Your task to perform on an android device: change text size in settings app Image 0: 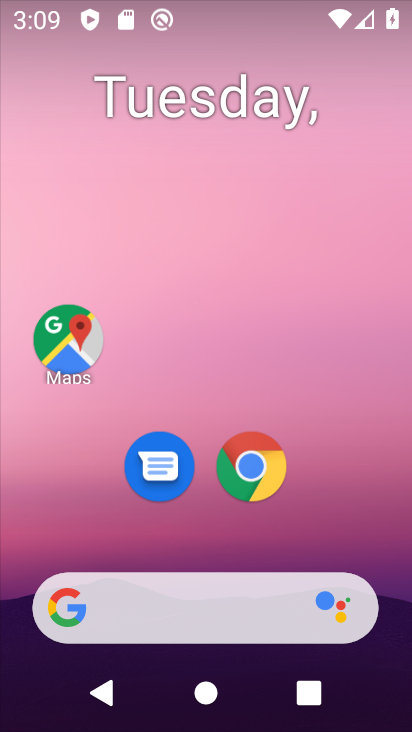
Step 0: drag from (374, 553) to (324, 282)
Your task to perform on an android device: change text size in settings app Image 1: 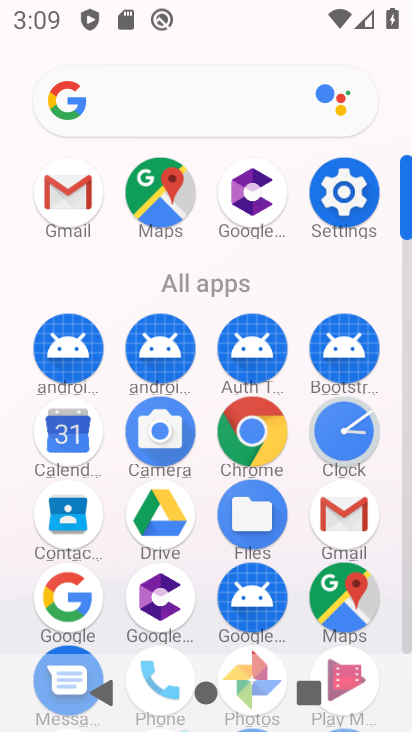
Step 1: click (337, 191)
Your task to perform on an android device: change text size in settings app Image 2: 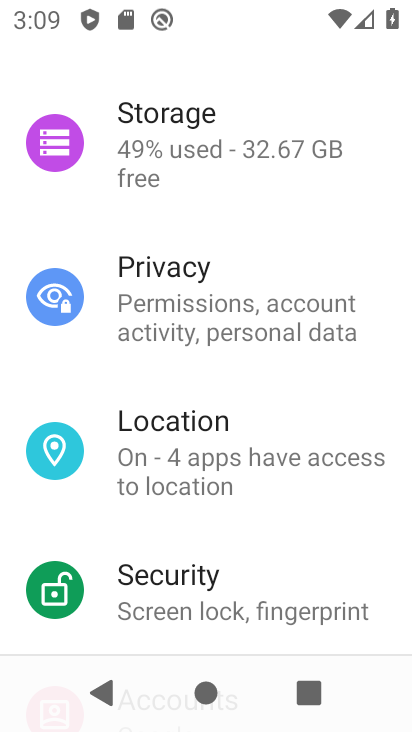
Step 2: drag from (337, 581) to (339, 42)
Your task to perform on an android device: change text size in settings app Image 3: 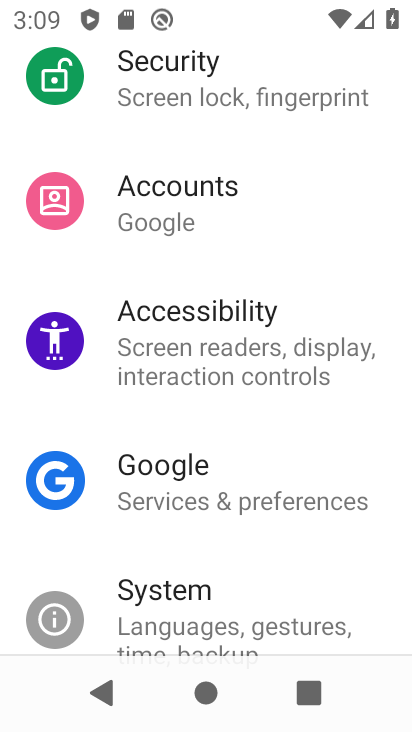
Step 3: drag from (305, 169) to (239, 531)
Your task to perform on an android device: change text size in settings app Image 4: 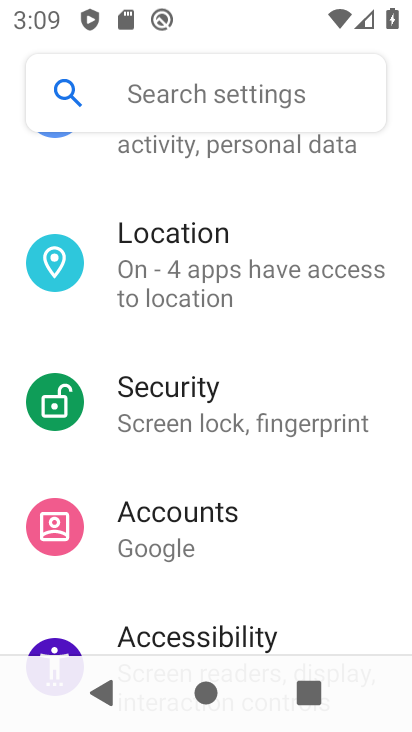
Step 4: drag from (282, 189) to (196, 553)
Your task to perform on an android device: change text size in settings app Image 5: 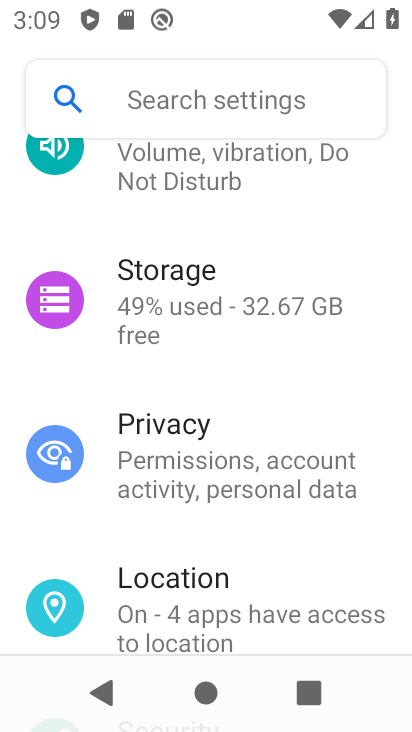
Step 5: drag from (303, 206) to (257, 554)
Your task to perform on an android device: change text size in settings app Image 6: 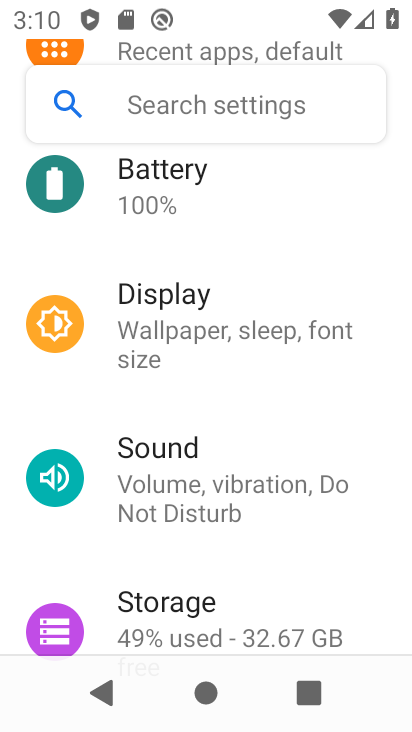
Step 6: click (211, 320)
Your task to perform on an android device: change text size in settings app Image 7: 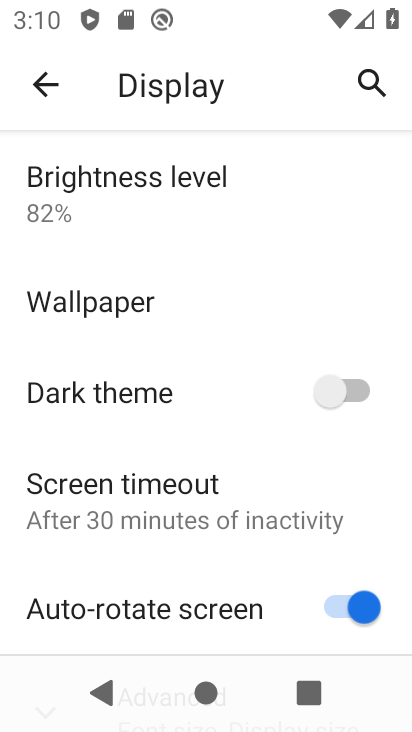
Step 7: drag from (207, 592) to (172, 191)
Your task to perform on an android device: change text size in settings app Image 8: 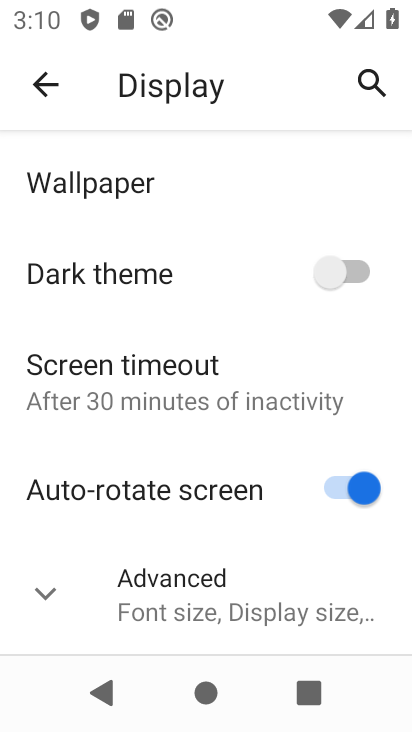
Step 8: click (44, 600)
Your task to perform on an android device: change text size in settings app Image 9: 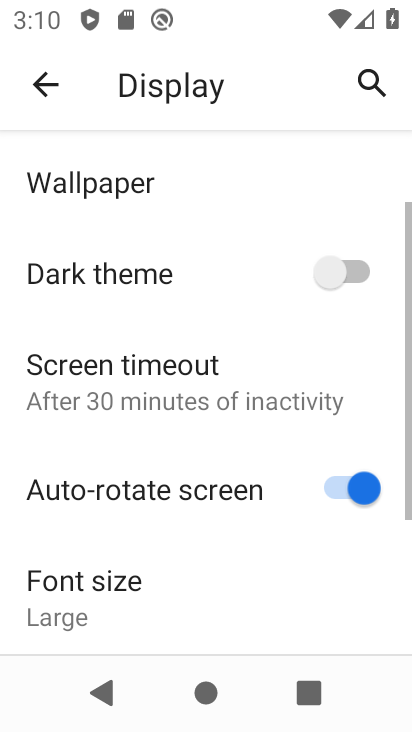
Step 9: drag from (194, 532) to (184, 240)
Your task to perform on an android device: change text size in settings app Image 10: 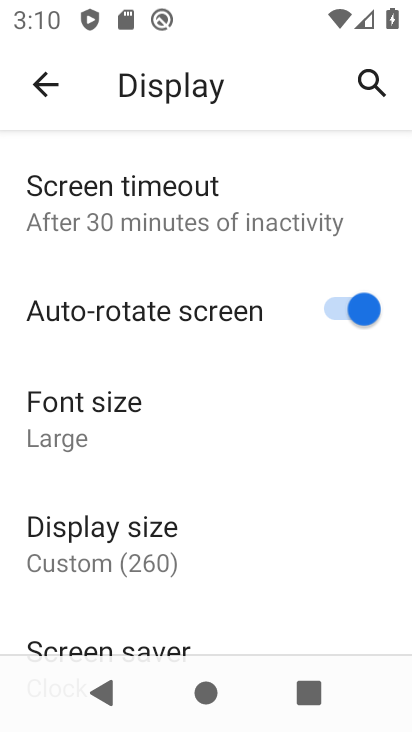
Step 10: click (118, 423)
Your task to perform on an android device: change text size in settings app Image 11: 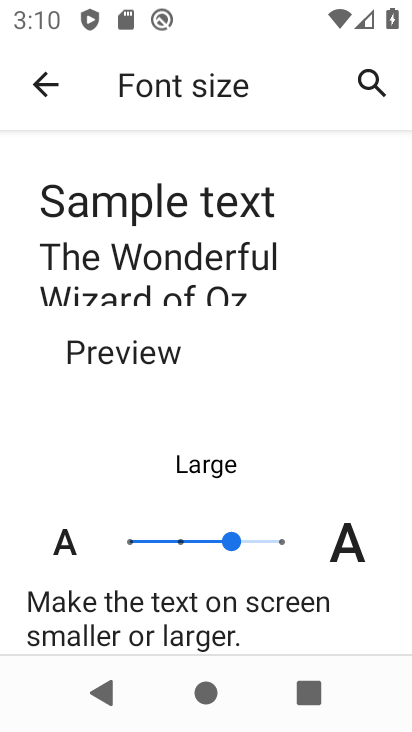
Step 11: click (178, 542)
Your task to perform on an android device: change text size in settings app Image 12: 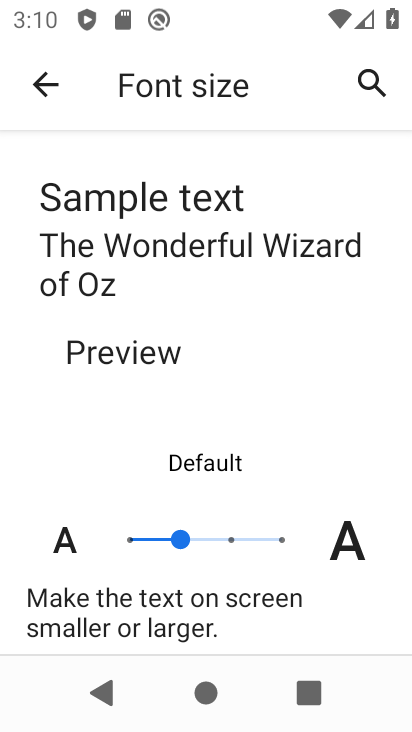
Step 12: task complete